Your task to perform on an android device: change alarm snooze length Image 0: 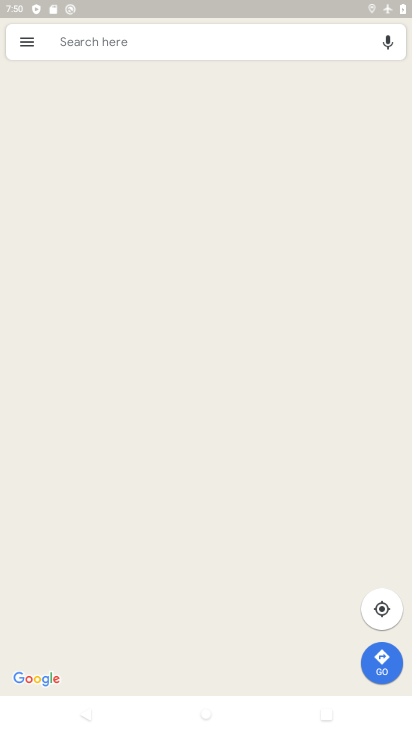
Step 0: press home button
Your task to perform on an android device: change alarm snooze length Image 1: 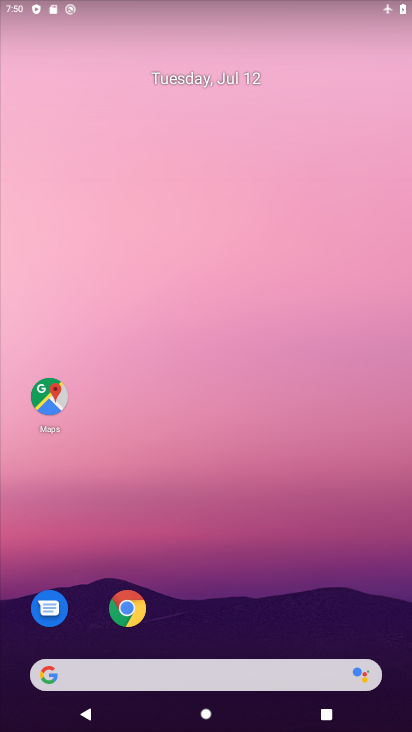
Step 1: drag from (179, 657) to (361, 686)
Your task to perform on an android device: change alarm snooze length Image 2: 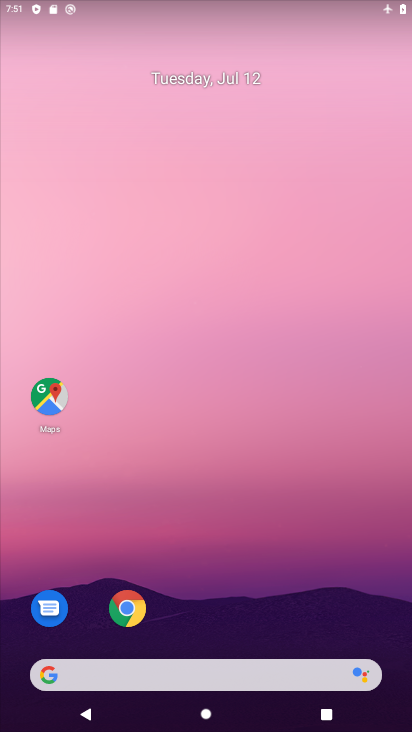
Step 2: drag from (206, 630) to (9, 298)
Your task to perform on an android device: change alarm snooze length Image 3: 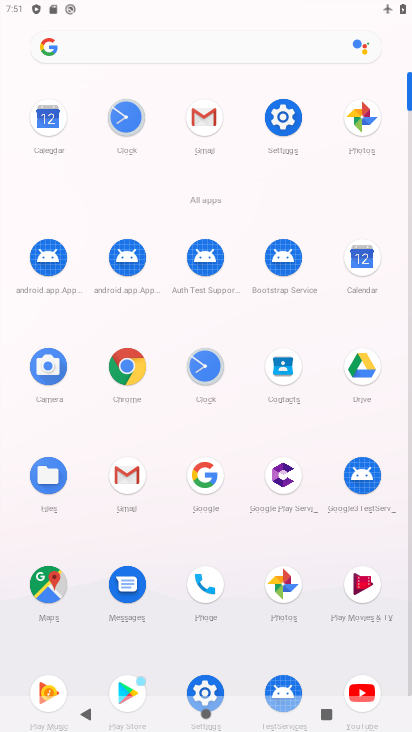
Step 3: click (212, 365)
Your task to perform on an android device: change alarm snooze length Image 4: 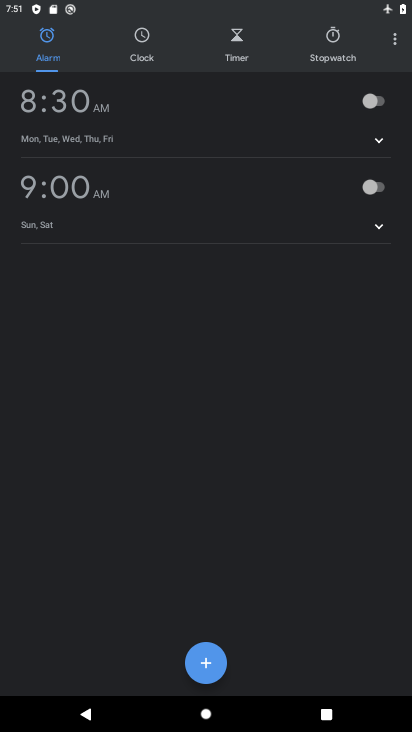
Step 4: click (389, 43)
Your task to perform on an android device: change alarm snooze length Image 5: 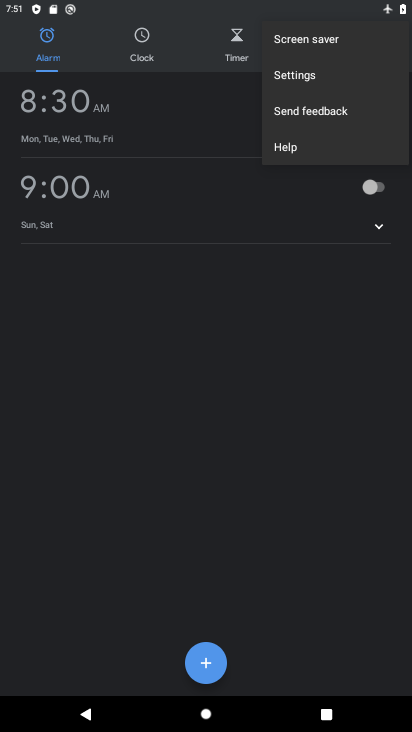
Step 5: click (308, 71)
Your task to perform on an android device: change alarm snooze length Image 6: 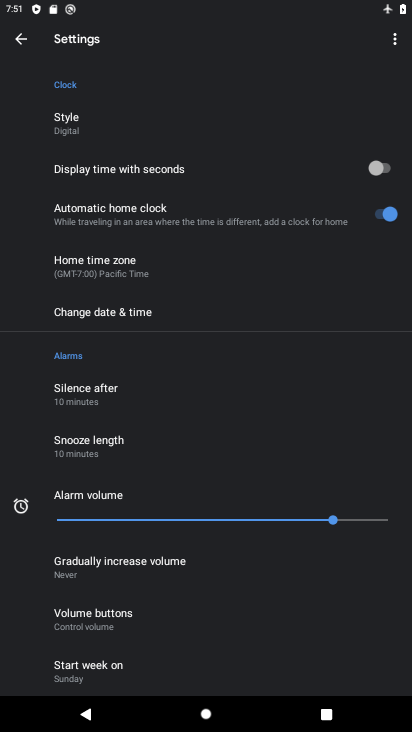
Step 6: click (116, 454)
Your task to perform on an android device: change alarm snooze length Image 7: 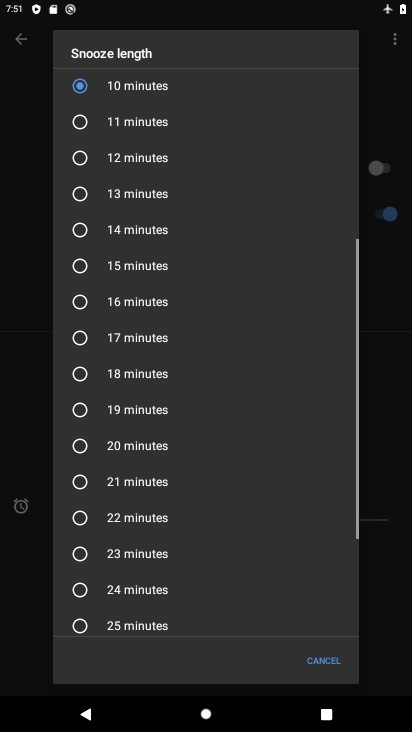
Step 7: click (111, 121)
Your task to perform on an android device: change alarm snooze length Image 8: 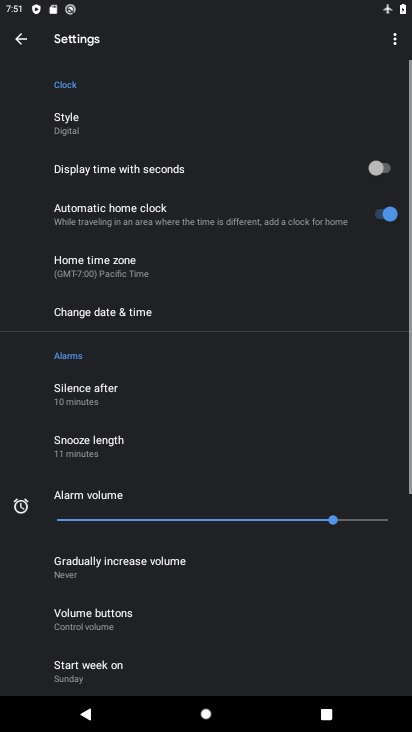
Step 8: task complete